Your task to perform on an android device: change your default location settings in chrome Image 0: 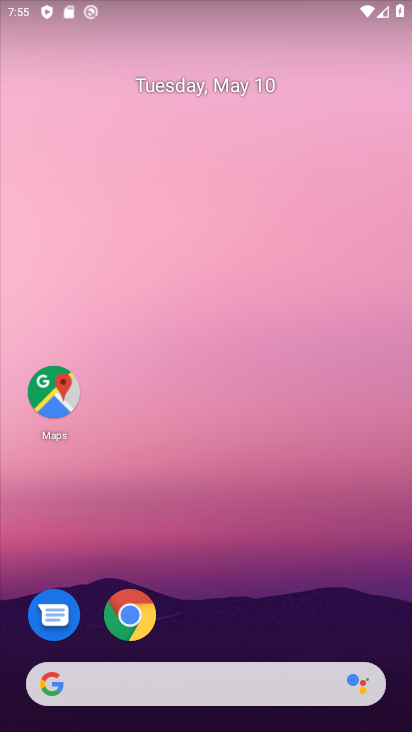
Step 0: drag from (165, 639) to (211, 65)
Your task to perform on an android device: change your default location settings in chrome Image 1: 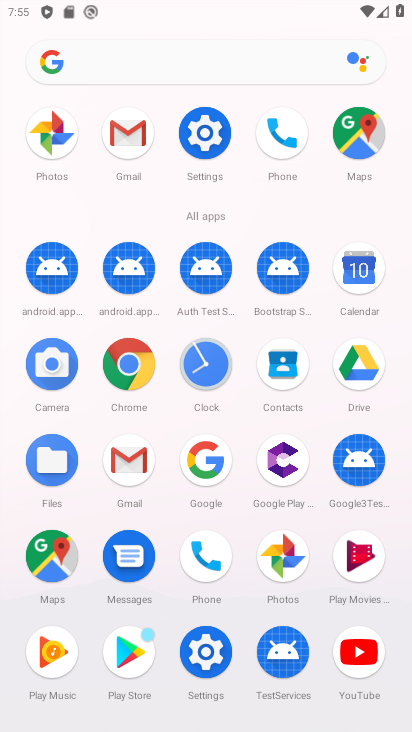
Step 1: click (123, 361)
Your task to perform on an android device: change your default location settings in chrome Image 2: 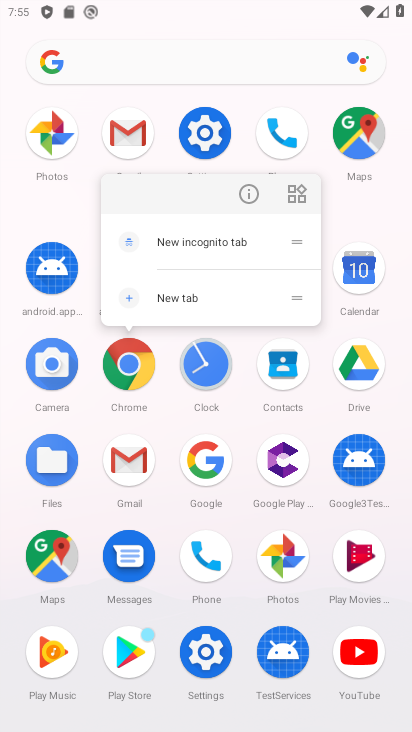
Step 2: click (247, 190)
Your task to perform on an android device: change your default location settings in chrome Image 3: 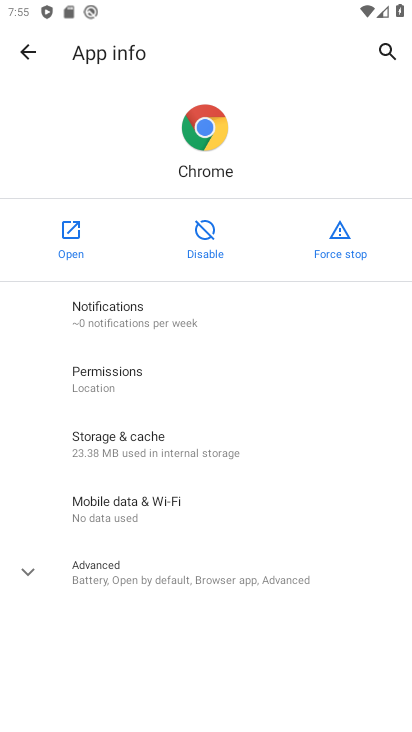
Step 3: click (86, 230)
Your task to perform on an android device: change your default location settings in chrome Image 4: 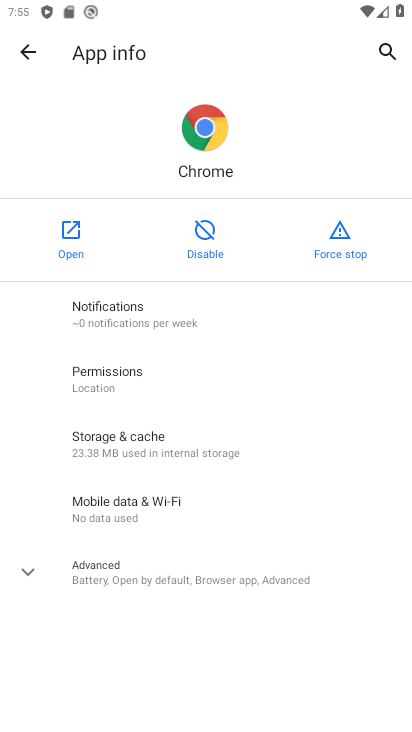
Step 4: click (67, 253)
Your task to perform on an android device: change your default location settings in chrome Image 5: 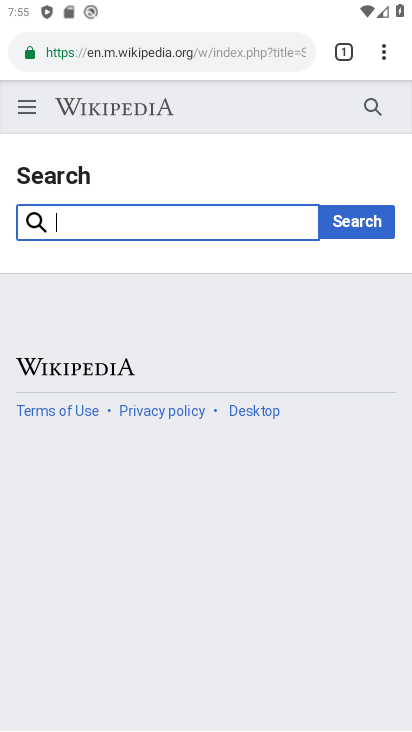
Step 5: drag from (388, 52) to (236, 627)
Your task to perform on an android device: change your default location settings in chrome Image 6: 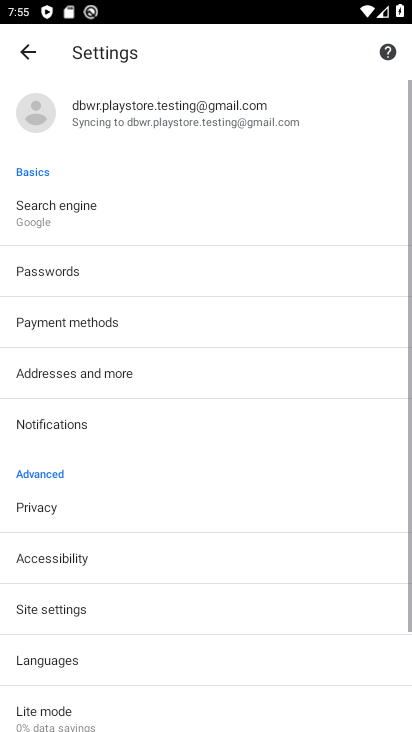
Step 6: drag from (149, 624) to (175, 348)
Your task to perform on an android device: change your default location settings in chrome Image 7: 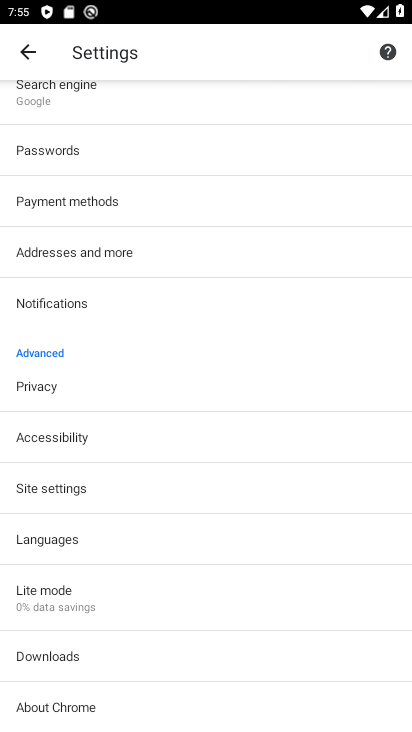
Step 7: click (75, 483)
Your task to perform on an android device: change your default location settings in chrome Image 8: 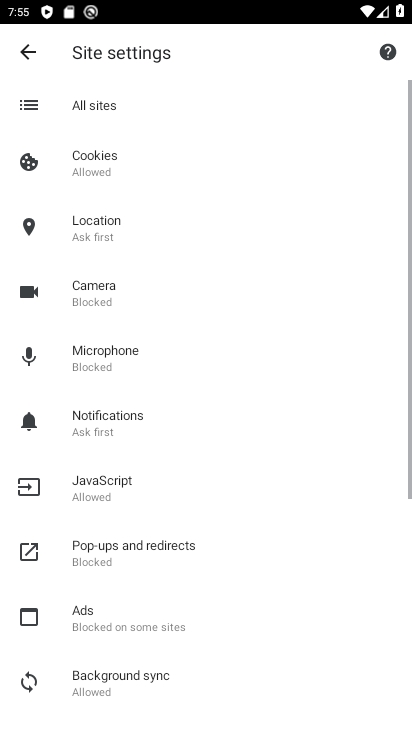
Step 8: click (122, 228)
Your task to perform on an android device: change your default location settings in chrome Image 9: 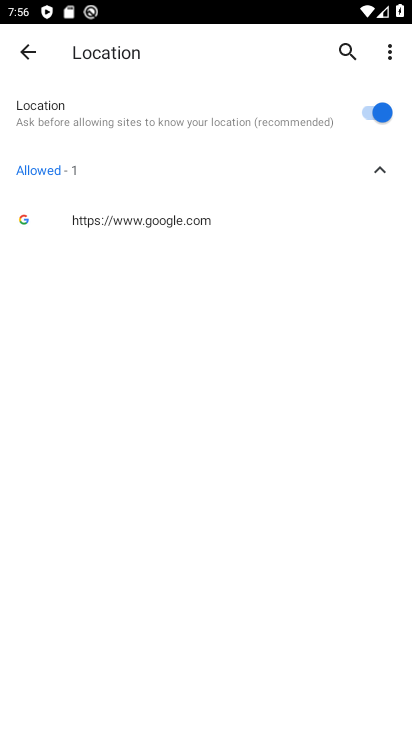
Step 9: click (369, 121)
Your task to perform on an android device: change your default location settings in chrome Image 10: 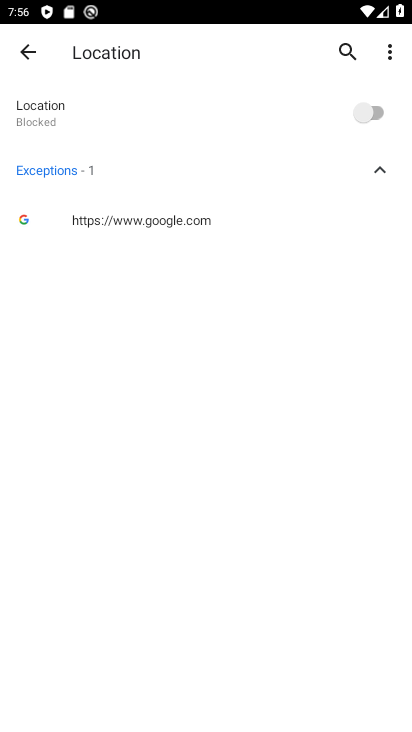
Step 10: task complete